Your task to perform on an android device: open app "Spotify" Image 0: 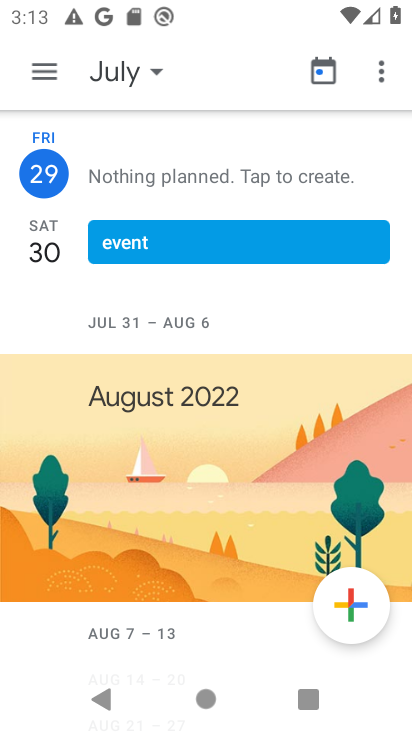
Step 0: press home button
Your task to perform on an android device: open app "Spotify" Image 1: 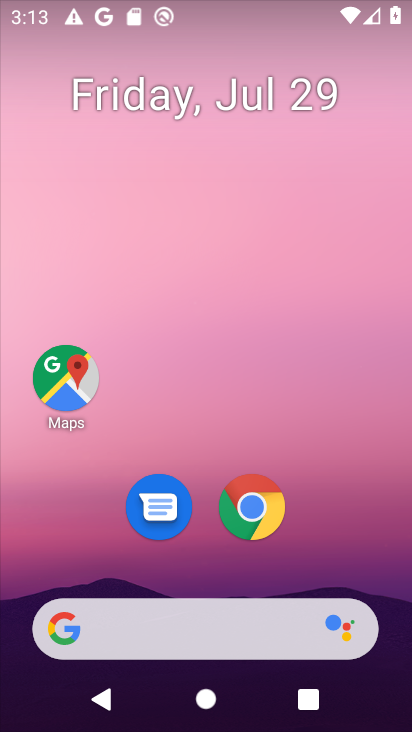
Step 1: click (216, 636)
Your task to perform on an android device: open app "Spotify" Image 2: 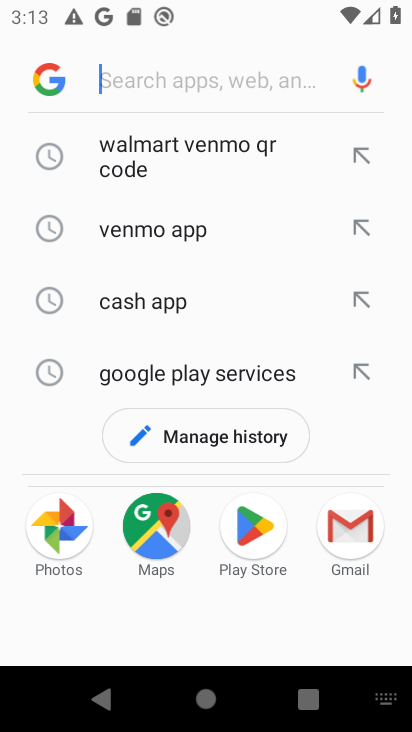
Step 2: type "spotify"
Your task to perform on an android device: open app "Spotify" Image 3: 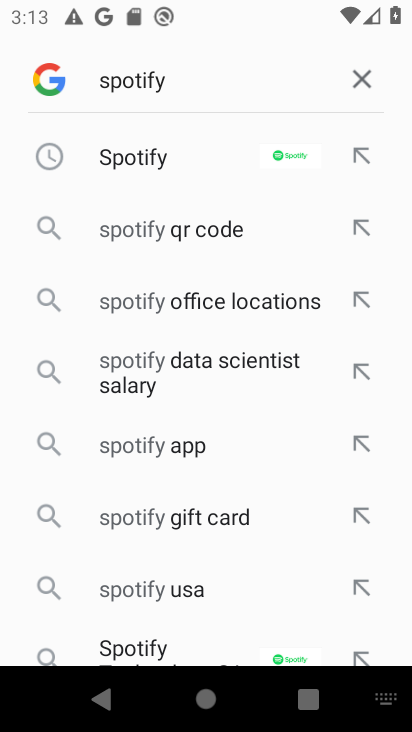
Step 3: click (210, 162)
Your task to perform on an android device: open app "Spotify" Image 4: 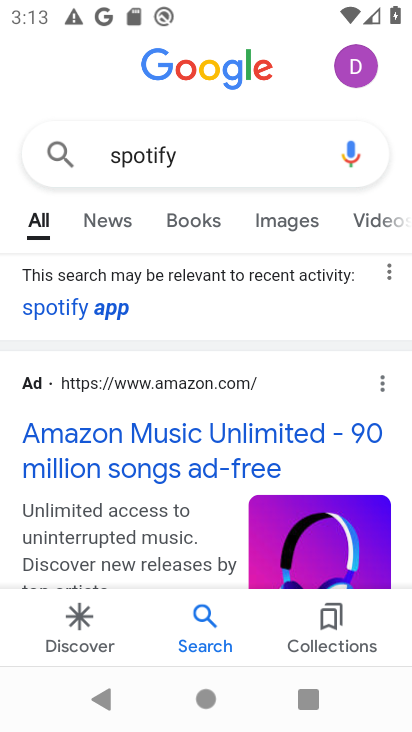
Step 4: click (111, 324)
Your task to perform on an android device: open app "Spotify" Image 5: 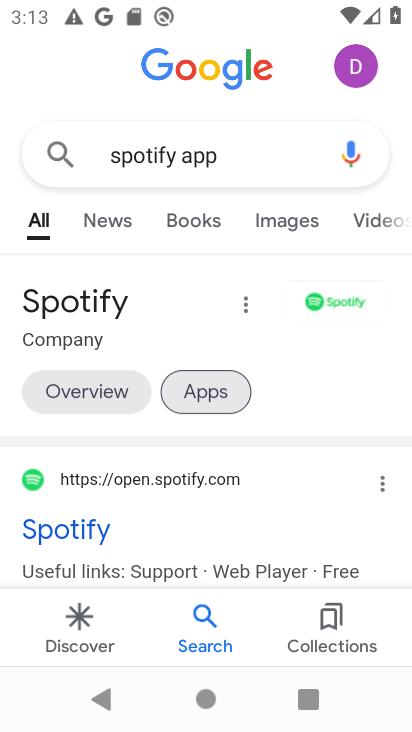
Step 5: drag from (328, 514) to (258, 133)
Your task to perform on an android device: open app "Spotify" Image 6: 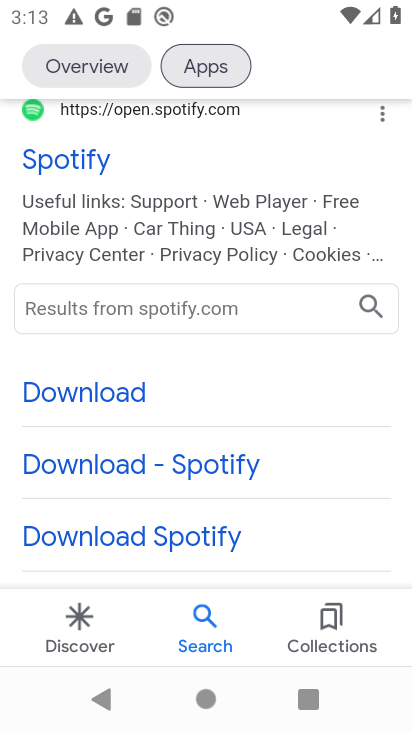
Step 6: drag from (237, 402) to (235, 153)
Your task to perform on an android device: open app "Spotify" Image 7: 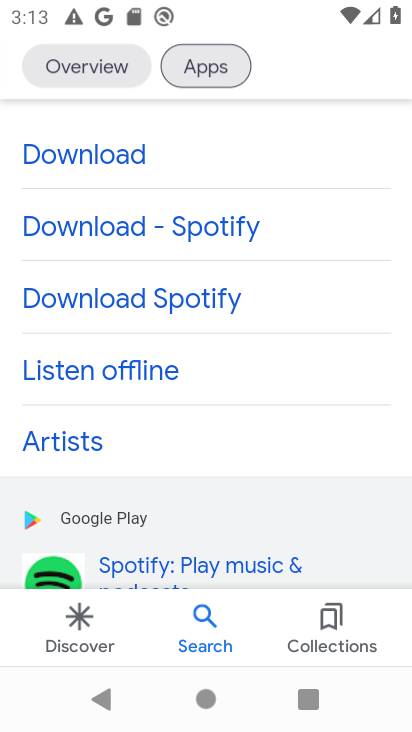
Step 7: drag from (219, 519) to (222, 149)
Your task to perform on an android device: open app "Spotify" Image 8: 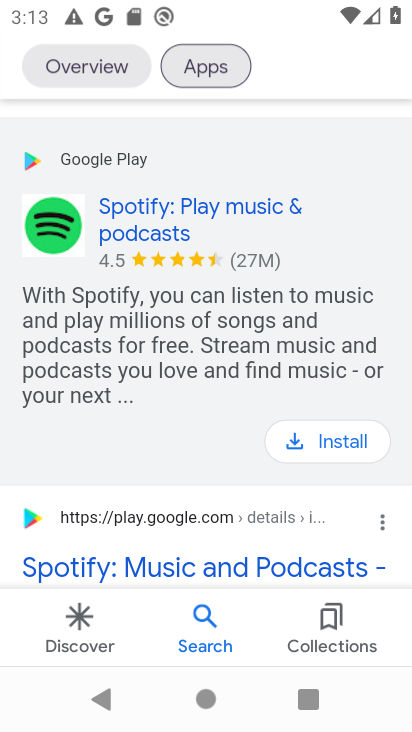
Step 8: click (324, 434)
Your task to perform on an android device: open app "Spotify" Image 9: 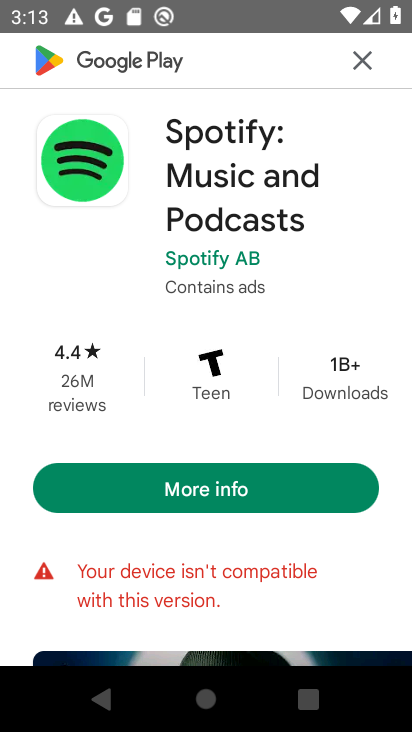
Step 9: task complete